Your task to perform on an android device: change alarm snooze length Image 0: 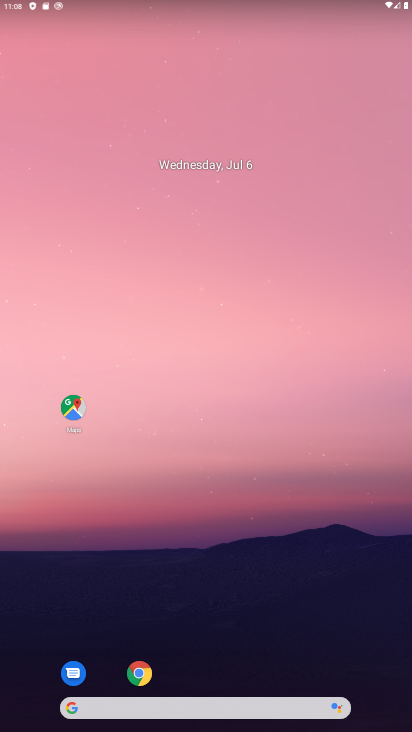
Step 0: drag from (243, 578) to (265, 9)
Your task to perform on an android device: change alarm snooze length Image 1: 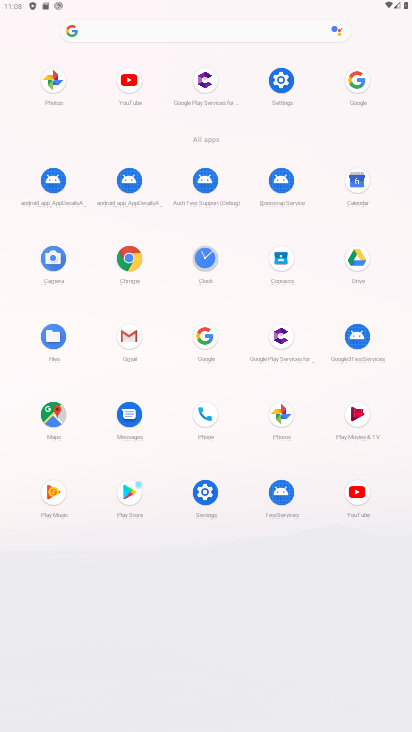
Step 1: click (285, 90)
Your task to perform on an android device: change alarm snooze length Image 2: 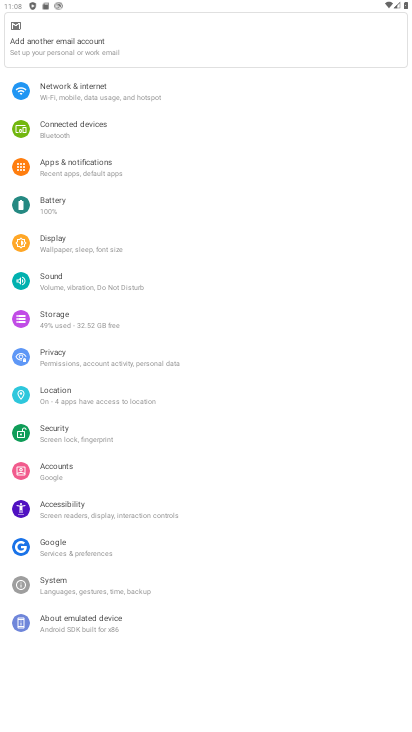
Step 2: press back button
Your task to perform on an android device: change alarm snooze length Image 3: 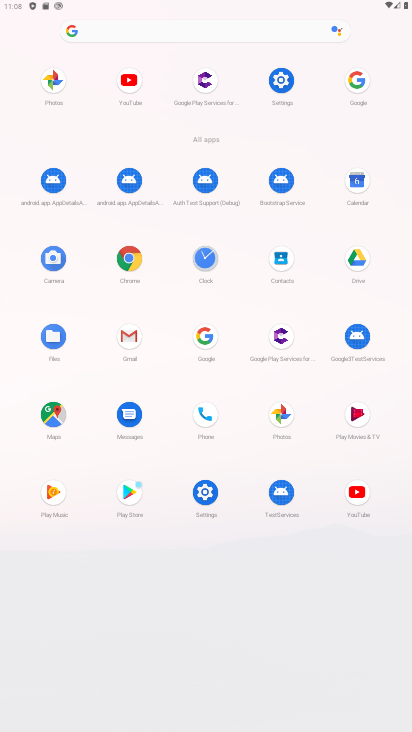
Step 3: click (205, 253)
Your task to perform on an android device: change alarm snooze length Image 4: 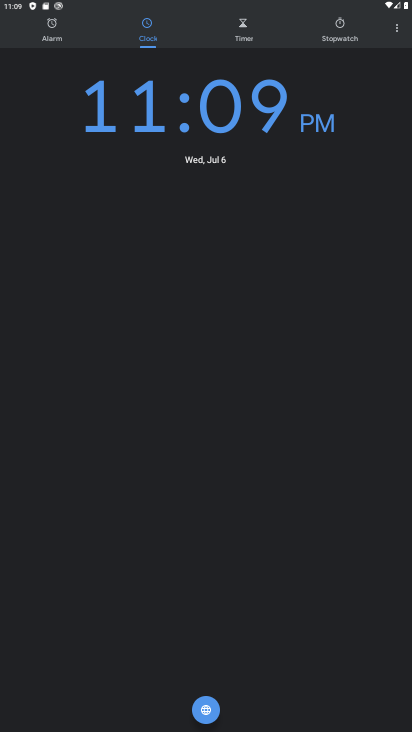
Step 4: click (398, 26)
Your task to perform on an android device: change alarm snooze length Image 5: 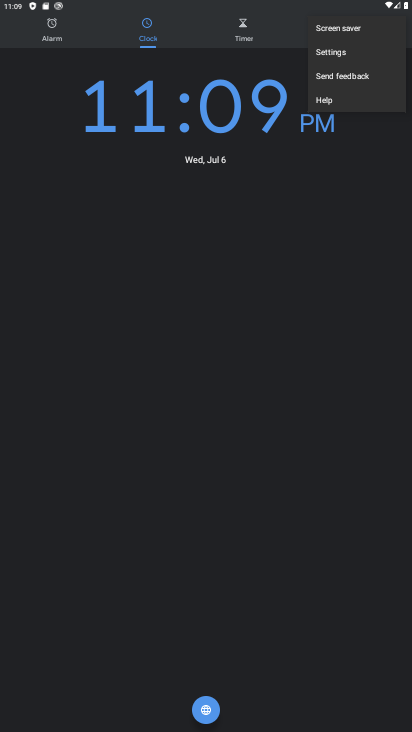
Step 5: click (346, 55)
Your task to perform on an android device: change alarm snooze length Image 6: 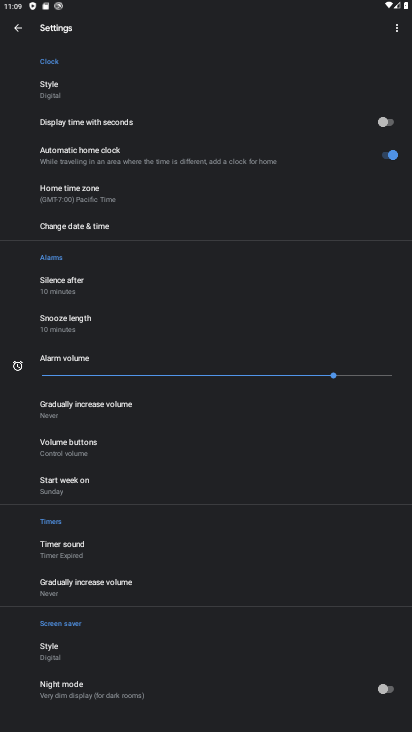
Step 6: click (88, 327)
Your task to perform on an android device: change alarm snooze length Image 7: 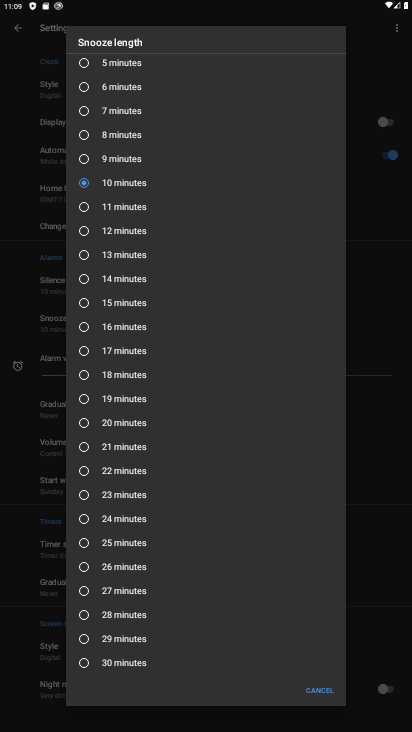
Step 7: click (89, 161)
Your task to perform on an android device: change alarm snooze length Image 8: 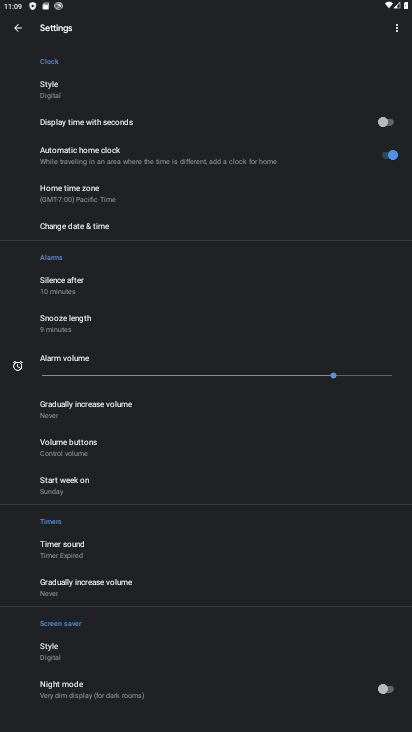
Step 8: task complete